Your task to perform on an android device: Check the weather Image 0: 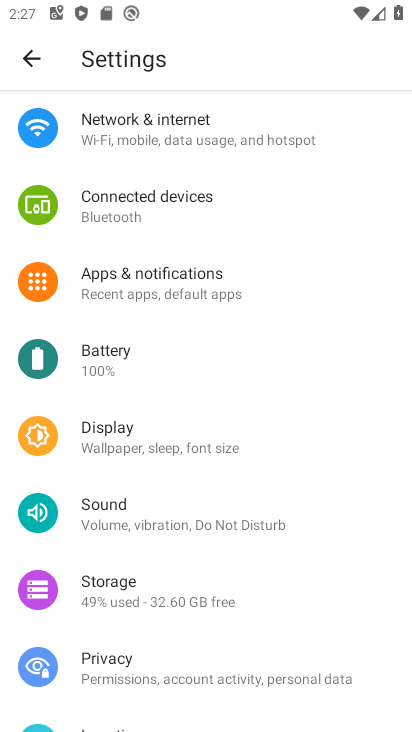
Step 0: press home button
Your task to perform on an android device: Check the weather Image 1: 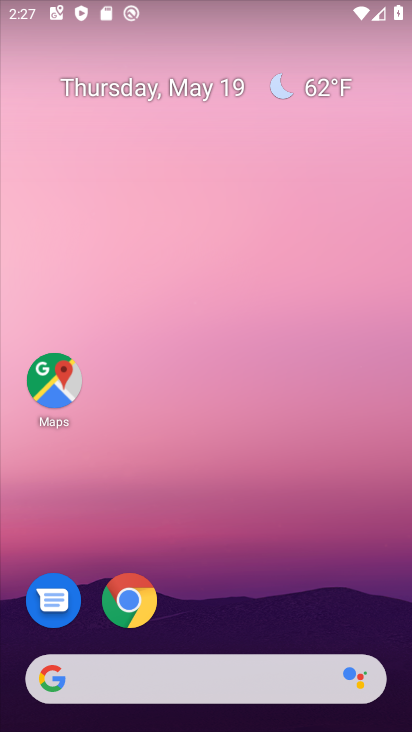
Step 1: click (188, 670)
Your task to perform on an android device: Check the weather Image 2: 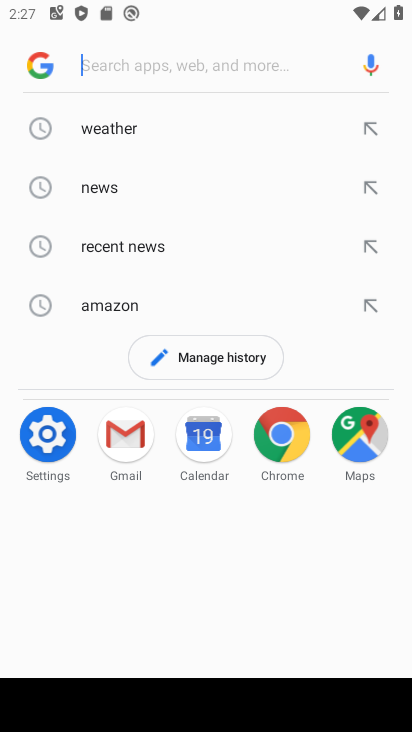
Step 2: click (130, 127)
Your task to perform on an android device: Check the weather Image 3: 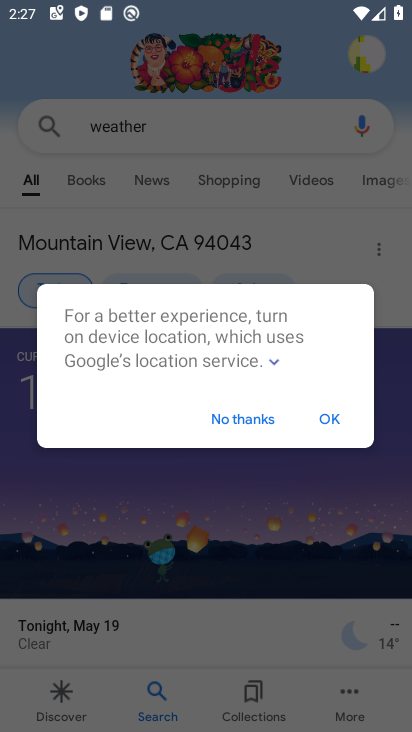
Step 3: click (332, 419)
Your task to perform on an android device: Check the weather Image 4: 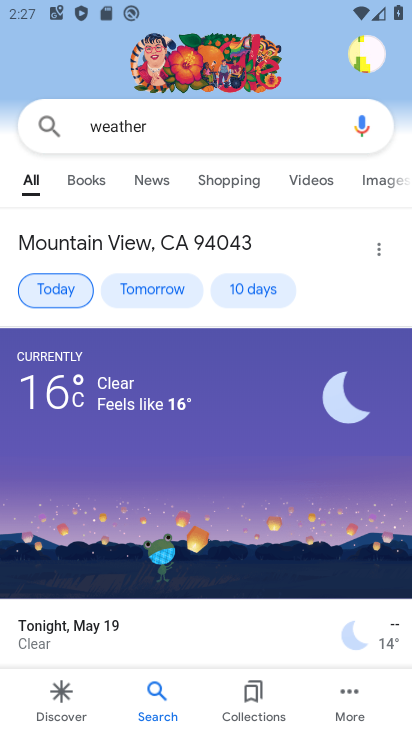
Step 4: task complete